Your task to perform on an android device: add a contact in the contacts app Image 0: 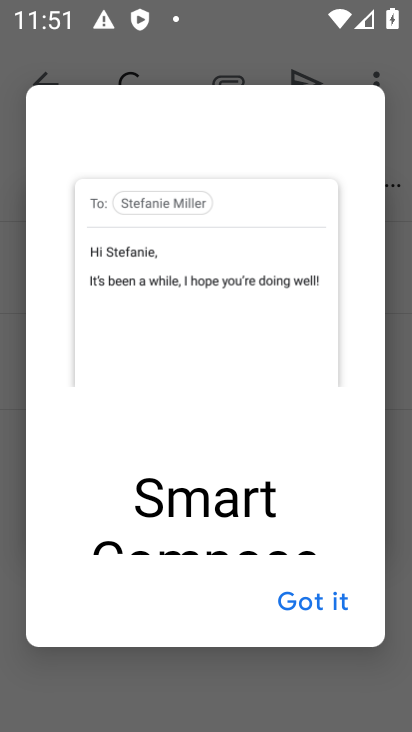
Step 0: press home button
Your task to perform on an android device: add a contact in the contacts app Image 1: 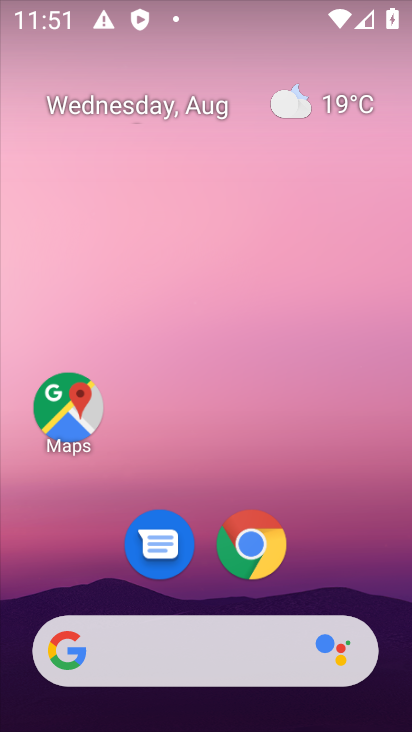
Step 1: drag from (307, 335) to (263, 76)
Your task to perform on an android device: add a contact in the contacts app Image 2: 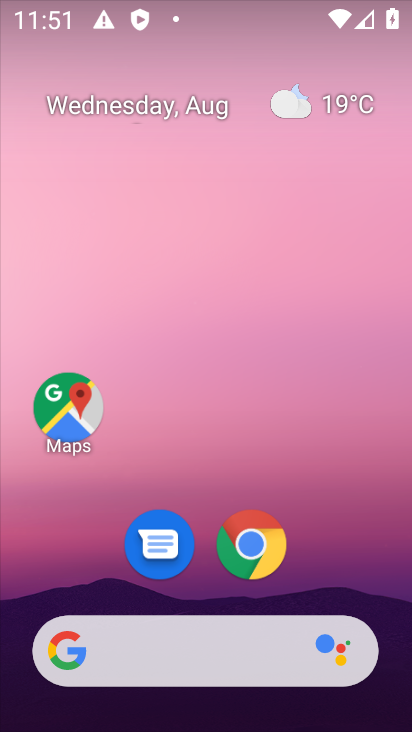
Step 2: drag from (383, 714) to (301, 45)
Your task to perform on an android device: add a contact in the contacts app Image 3: 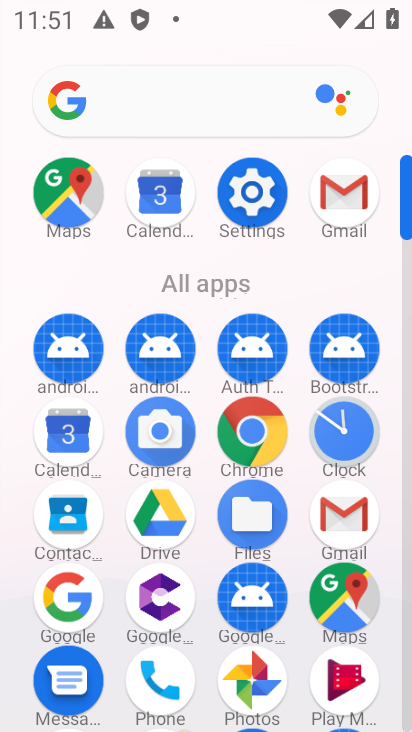
Step 3: click (76, 526)
Your task to perform on an android device: add a contact in the contacts app Image 4: 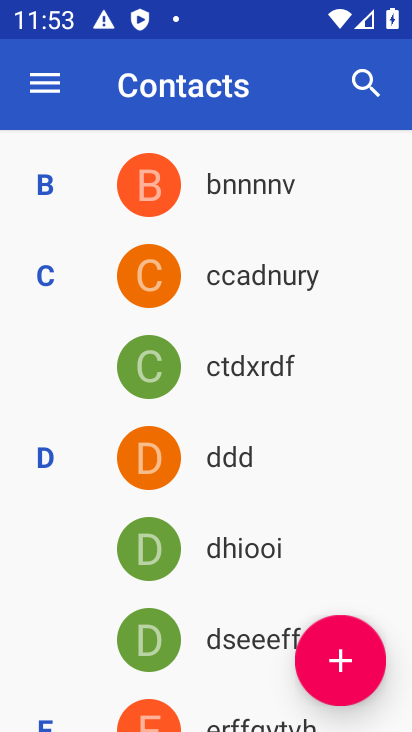
Step 4: press home button
Your task to perform on an android device: add a contact in the contacts app Image 5: 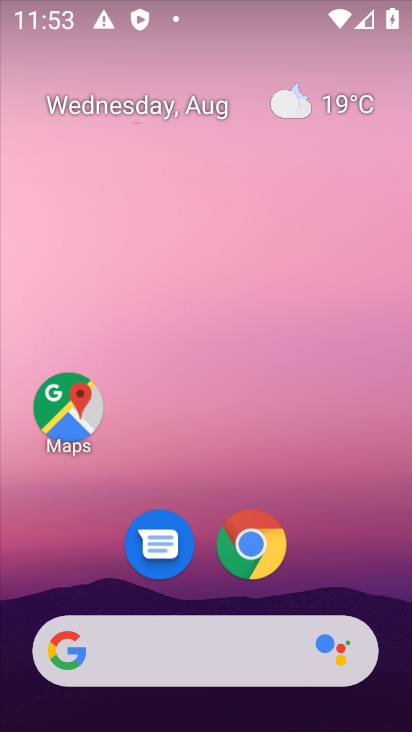
Step 5: drag from (385, 694) to (294, 46)
Your task to perform on an android device: add a contact in the contacts app Image 6: 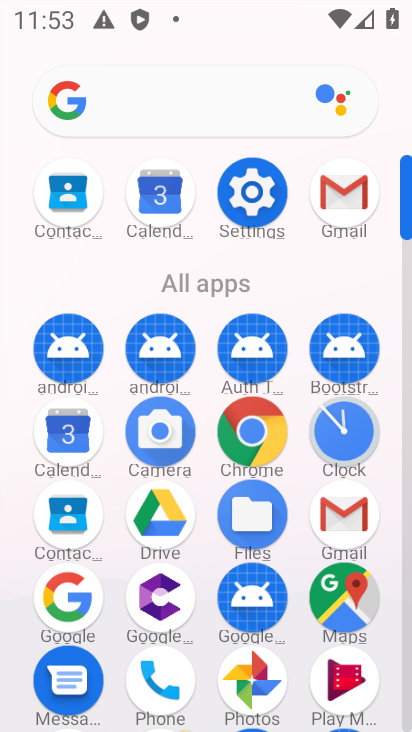
Step 6: click (64, 517)
Your task to perform on an android device: add a contact in the contacts app Image 7: 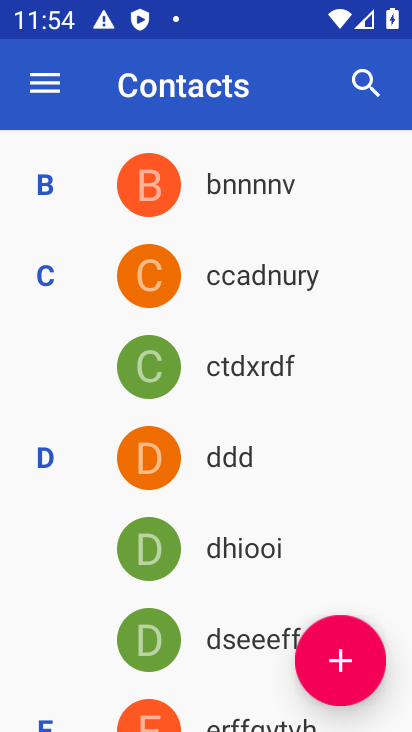
Step 7: click (335, 650)
Your task to perform on an android device: add a contact in the contacts app Image 8: 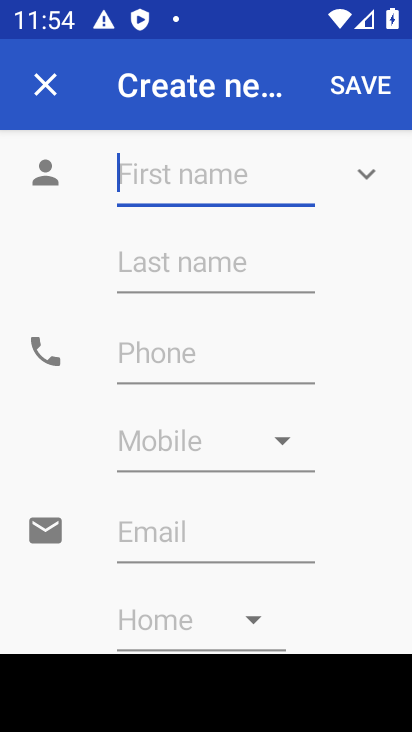
Step 8: type "r6dtfctdxt"
Your task to perform on an android device: add a contact in the contacts app Image 9: 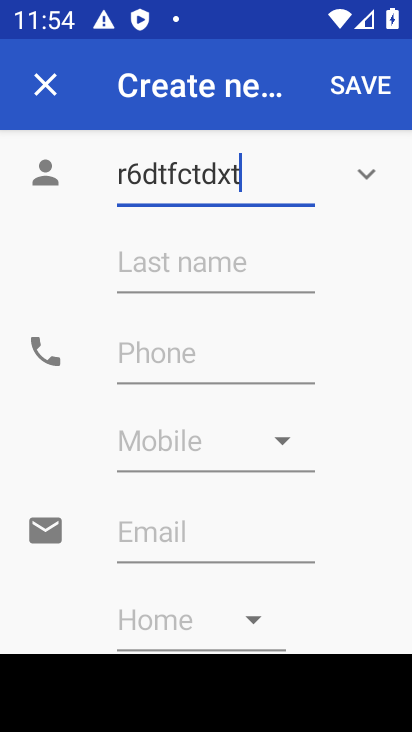
Step 9: click (227, 261)
Your task to perform on an android device: add a contact in the contacts app Image 10: 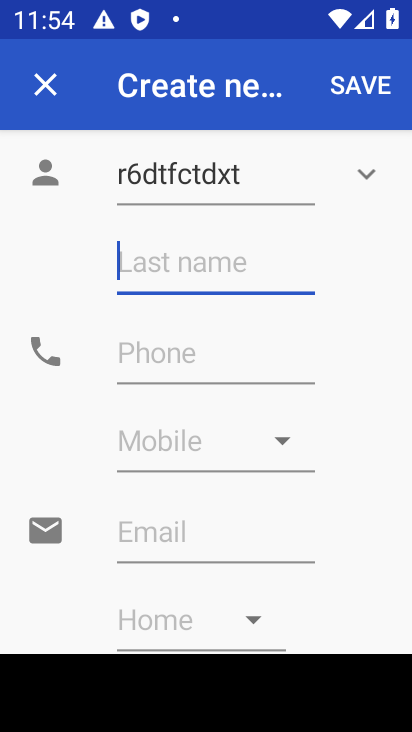
Step 10: type "dfyrx grtdb"
Your task to perform on an android device: add a contact in the contacts app Image 11: 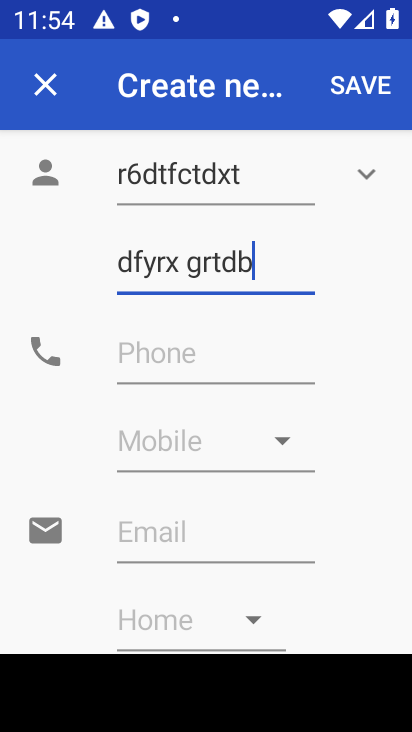
Step 11: click (181, 359)
Your task to perform on an android device: add a contact in the contacts app Image 12: 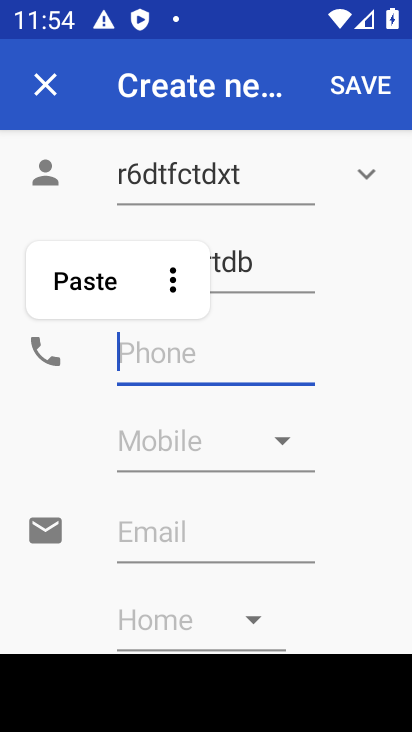
Step 12: type "34345644446454"
Your task to perform on an android device: add a contact in the contacts app Image 13: 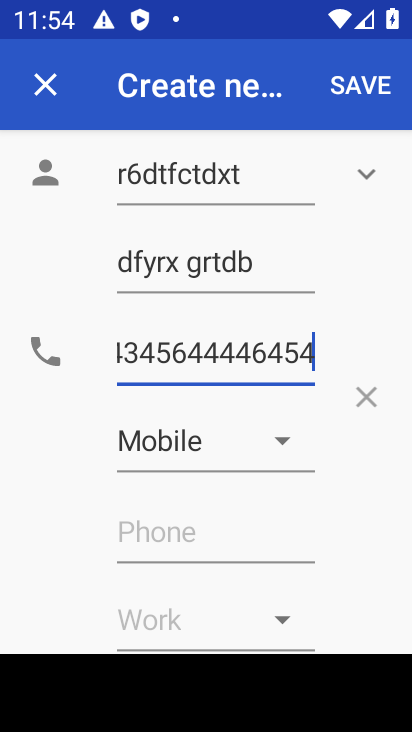
Step 13: click (354, 85)
Your task to perform on an android device: add a contact in the contacts app Image 14: 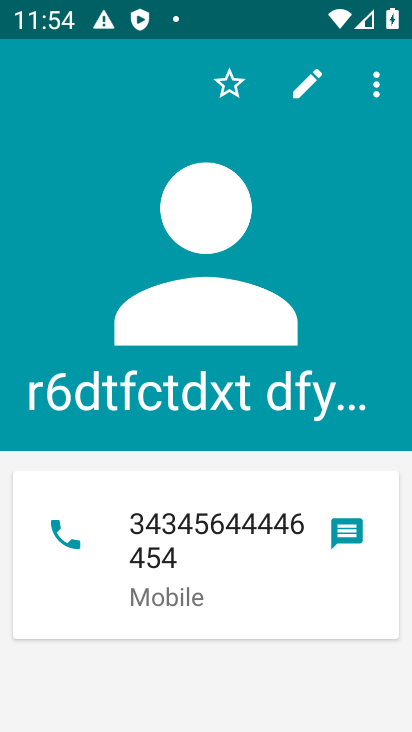
Step 14: task complete